Your task to perform on an android device: Go to Amazon Image 0: 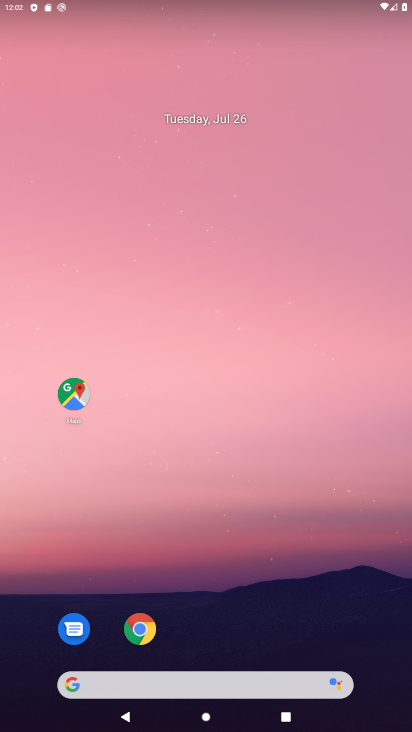
Step 0: drag from (303, 674) to (230, 176)
Your task to perform on an android device: Go to Amazon Image 1: 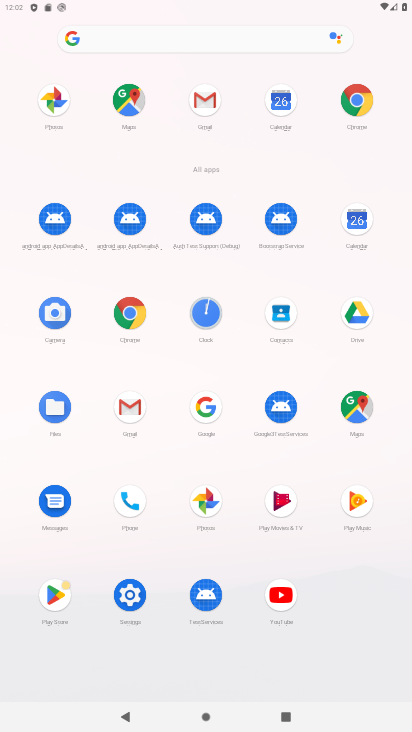
Step 1: click (348, 100)
Your task to perform on an android device: Go to Amazon Image 2: 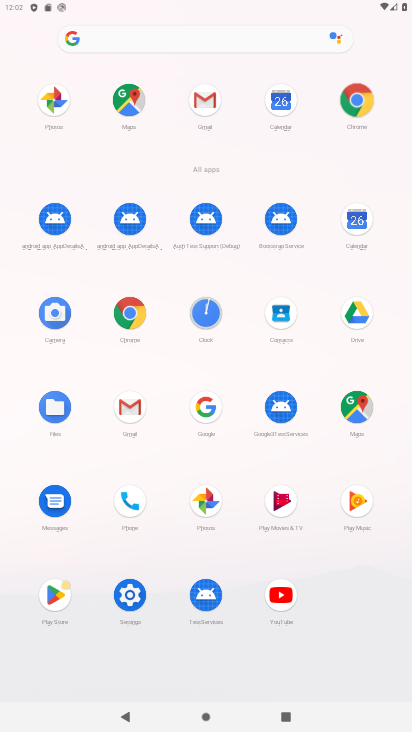
Step 2: drag from (348, 100) to (378, 118)
Your task to perform on an android device: Go to Amazon Image 3: 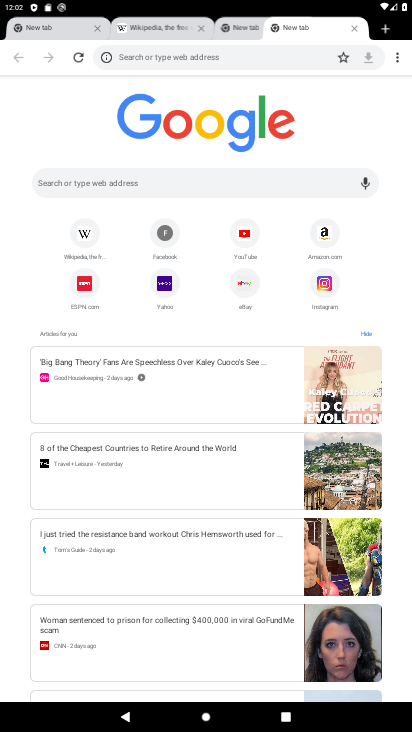
Step 3: click (326, 237)
Your task to perform on an android device: Go to Amazon Image 4: 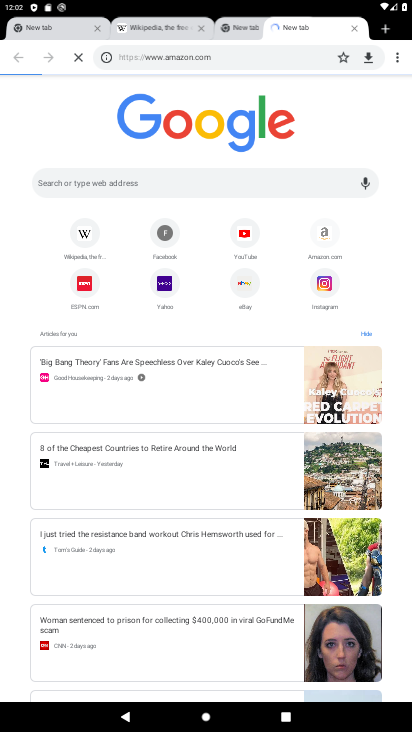
Step 4: click (327, 237)
Your task to perform on an android device: Go to Amazon Image 5: 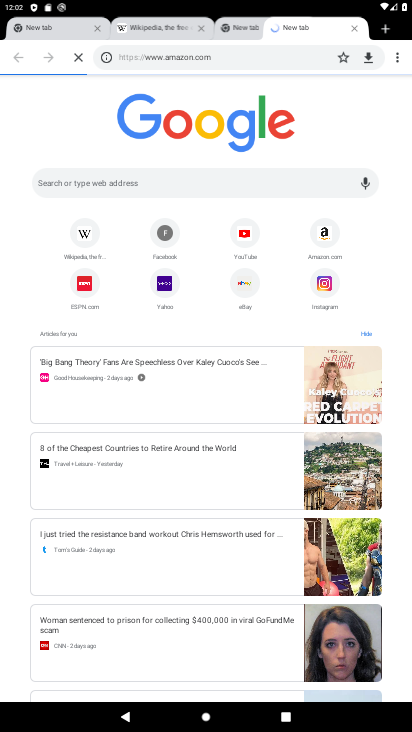
Step 5: click (321, 233)
Your task to perform on an android device: Go to Amazon Image 6: 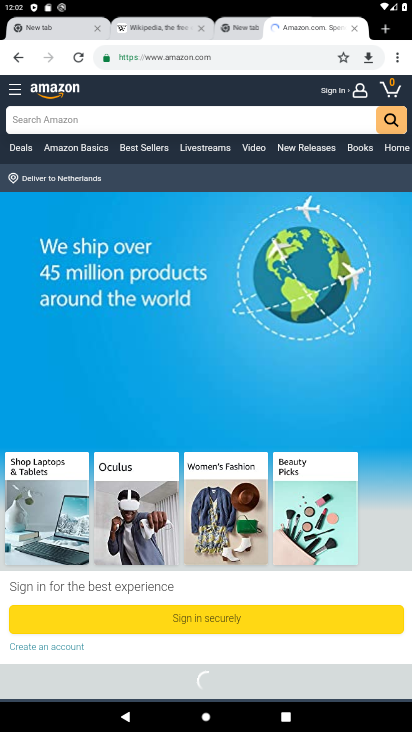
Step 6: task complete